Your task to perform on an android device: turn off javascript in the chrome app Image 0: 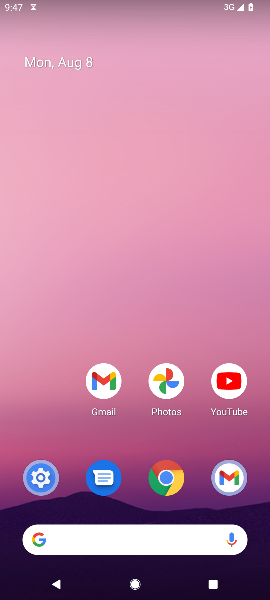
Step 0: press home button
Your task to perform on an android device: turn off javascript in the chrome app Image 1: 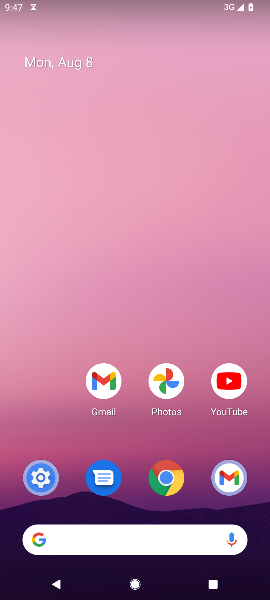
Step 1: click (168, 487)
Your task to perform on an android device: turn off javascript in the chrome app Image 2: 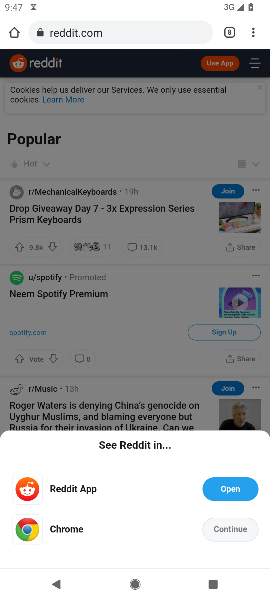
Step 2: drag from (259, 29) to (189, 405)
Your task to perform on an android device: turn off javascript in the chrome app Image 3: 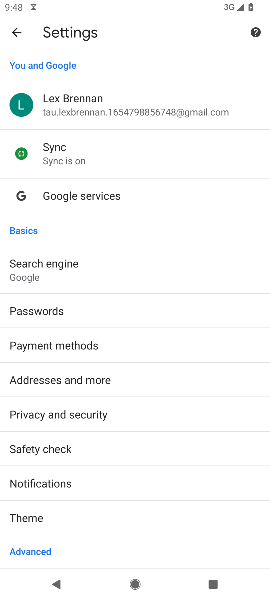
Step 3: drag from (137, 477) to (214, 133)
Your task to perform on an android device: turn off javascript in the chrome app Image 4: 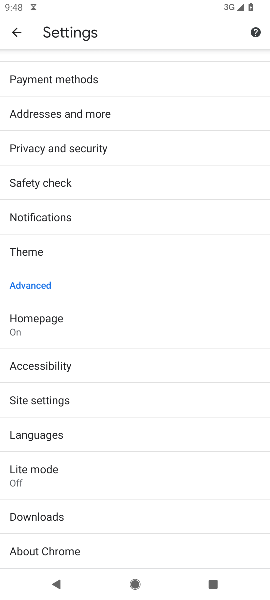
Step 4: click (67, 400)
Your task to perform on an android device: turn off javascript in the chrome app Image 5: 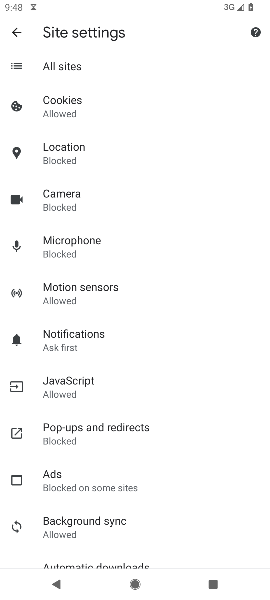
Step 5: click (85, 380)
Your task to perform on an android device: turn off javascript in the chrome app Image 6: 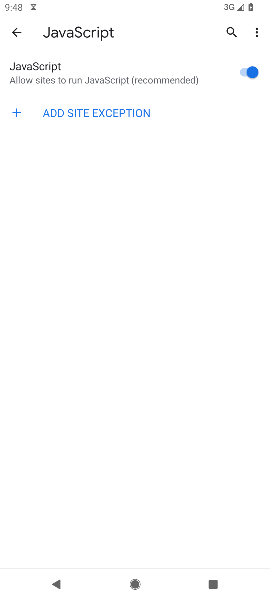
Step 6: click (247, 70)
Your task to perform on an android device: turn off javascript in the chrome app Image 7: 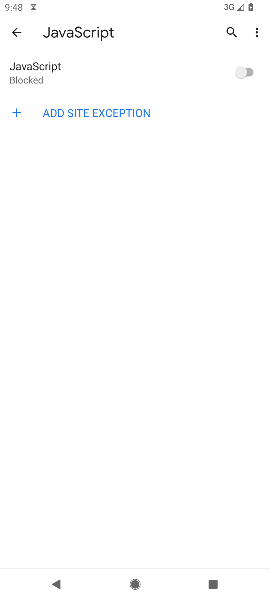
Step 7: task complete